Your task to perform on an android device: open a bookmark in the chrome app Image 0: 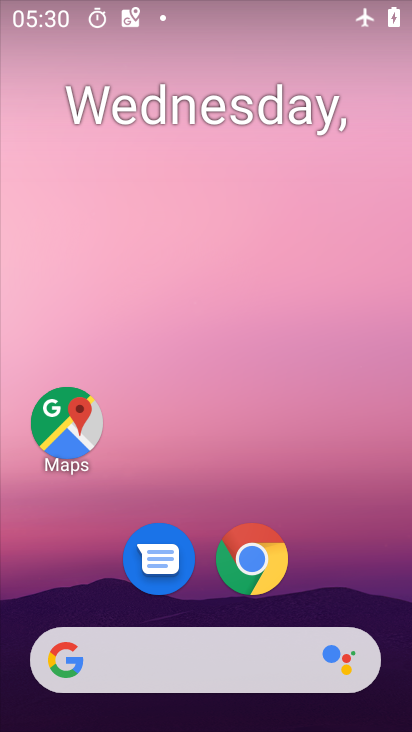
Step 0: click (258, 546)
Your task to perform on an android device: open a bookmark in the chrome app Image 1: 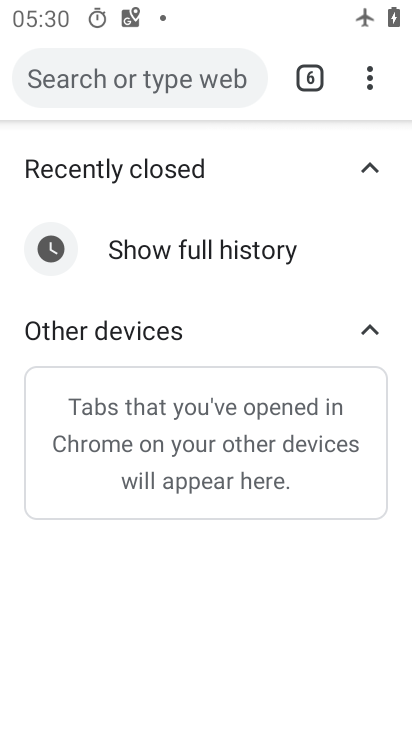
Step 1: click (374, 68)
Your task to perform on an android device: open a bookmark in the chrome app Image 2: 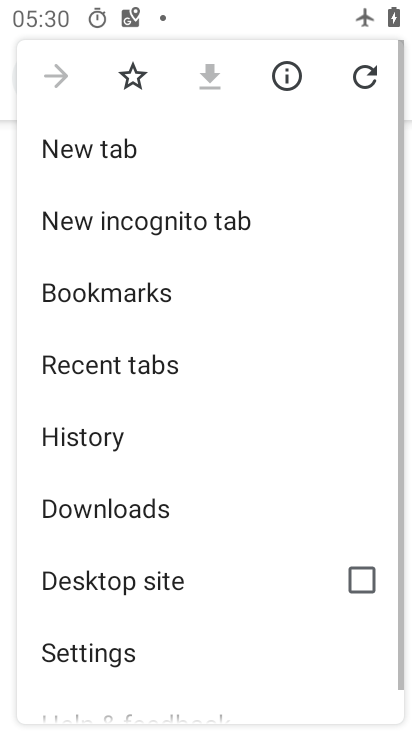
Step 2: click (174, 294)
Your task to perform on an android device: open a bookmark in the chrome app Image 3: 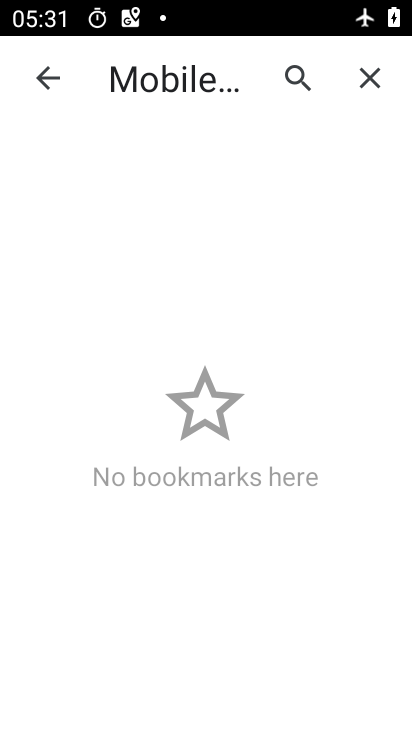
Step 3: task complete